Your task to perform on an android device: Go to internet settings Image 0: 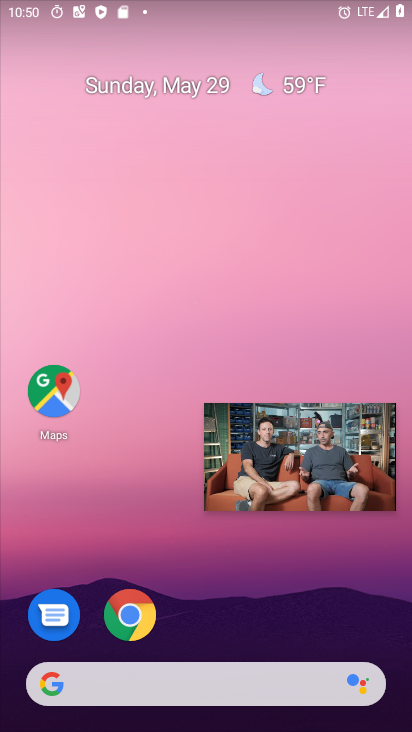
Step 0: drag from (262, 559) to (247, 81)
Your task to perform on an android device: Go to internet settings Image 1: 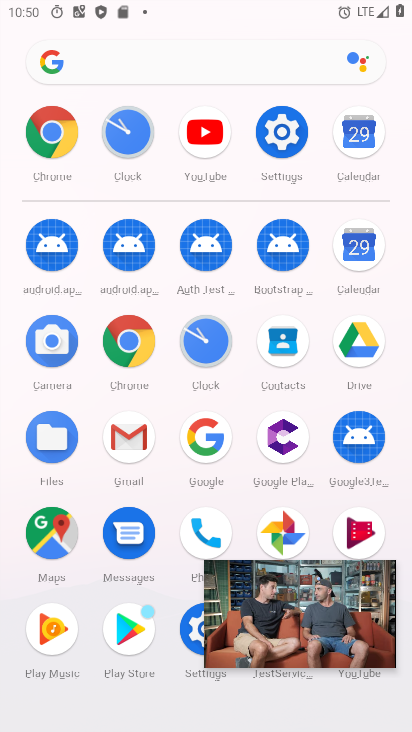
Step 1: click (276, 133)
Your task to perform on an android device: Go to internet settings Image 2: 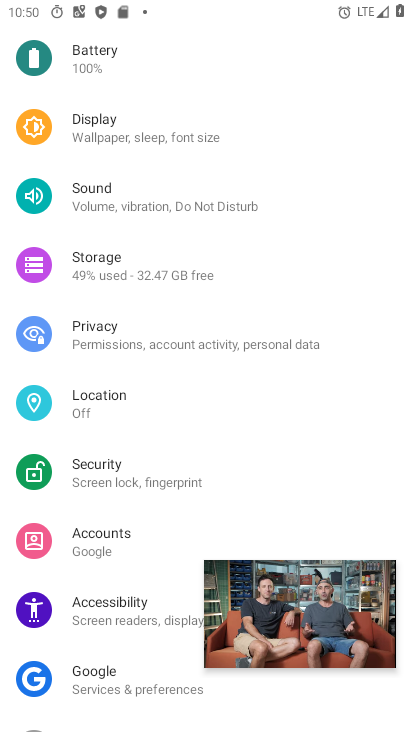
Step 2: drag from (136, 123) to (125, 543)
Your task to perform on an android device: Go to internet settings Image 3: 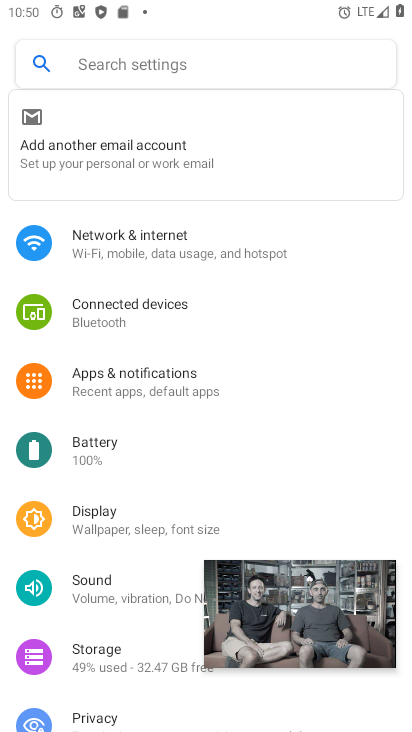
Step 3: click (132, 253)
Your task to perform on an android device: Go to internet settings Image 4: 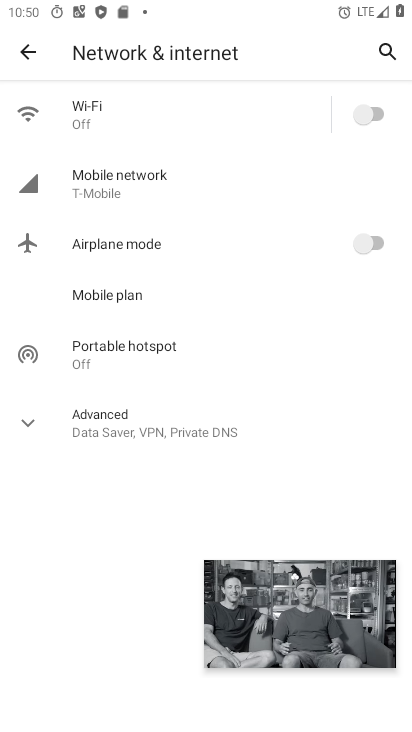
Step 4: click (136, 111)
Your task to perform on an android device: Go to internet settings Image 5: 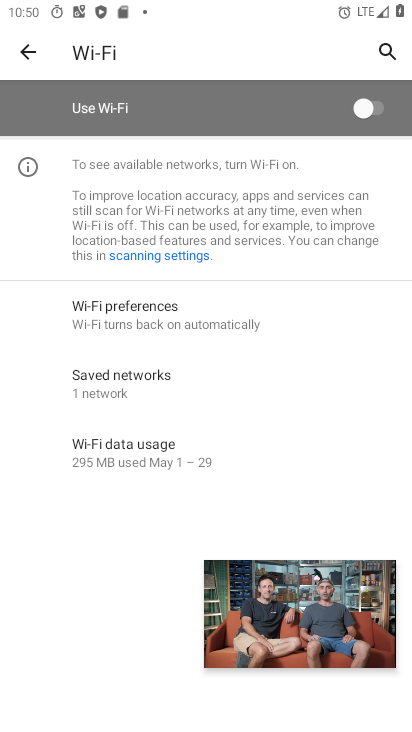
Step 5: click (344, 108)
Your task to perform on an android device: Go to internet settings Image 6: 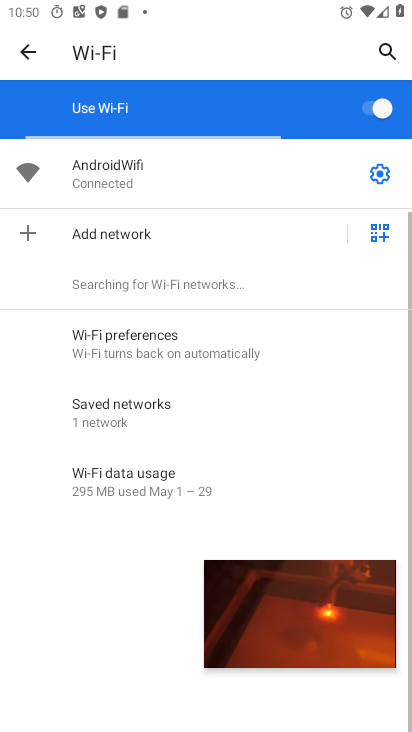
Step 6: click (144, 168)
Your task to perform on an android device: Go to internet settings Image 7: 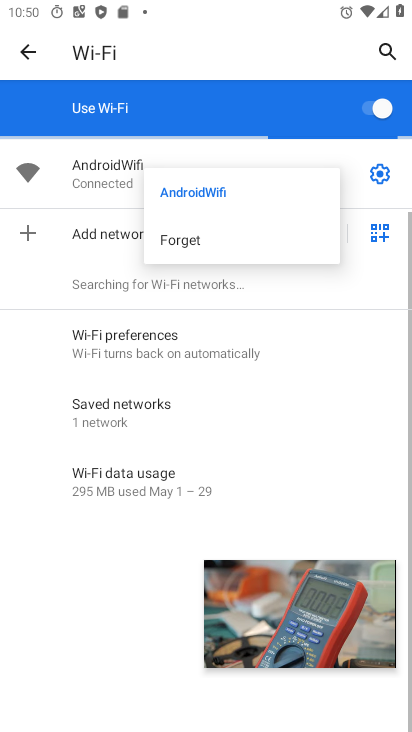
Step 7: click (113, 178)
Your task to perform on an android device: Go to internet settings Image 8: 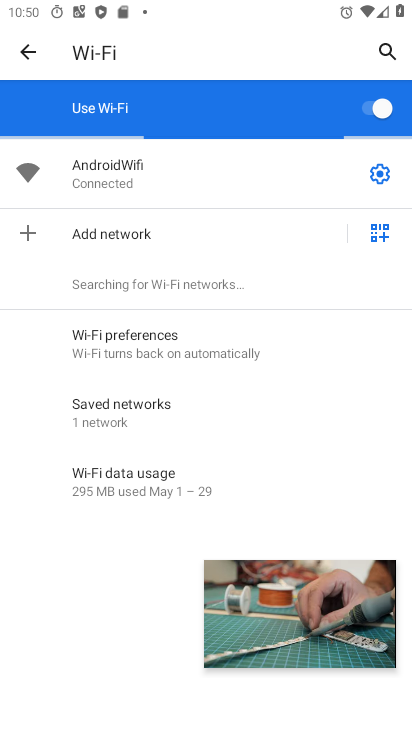
Step 8: click (196, 172)
Your task to perform on an android device: Go to internet settings Image 9: 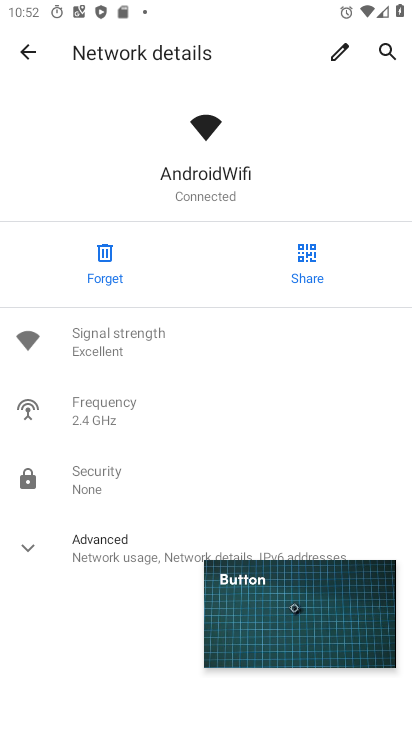
Step 9: task complete